Your task to perform on an android device: check the backup settings in the google photos Image 0: 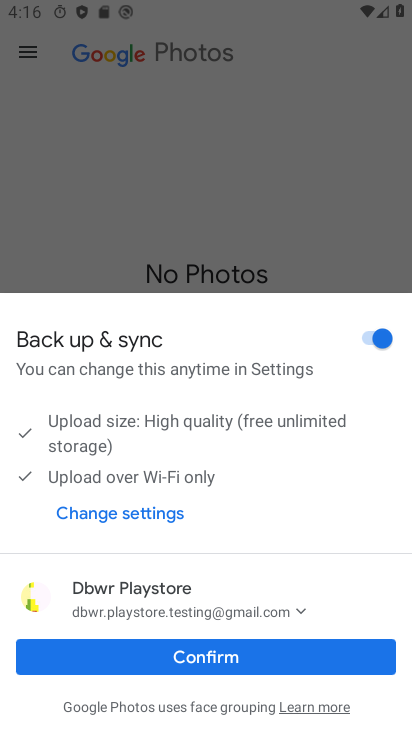
Step 0: press home button
Your task to perform on an android device: check the backup settings in the google photos Image 1: 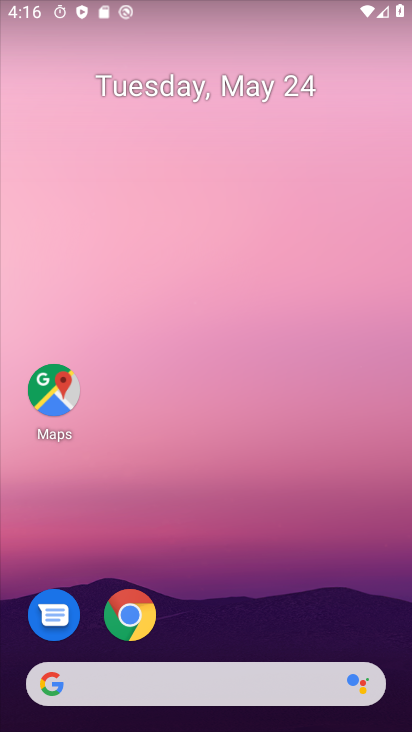
Step 1: drag from (206, 613) to (293, 65)
Your task to perform on an android device: check the backup settings in the google photos Image 2: 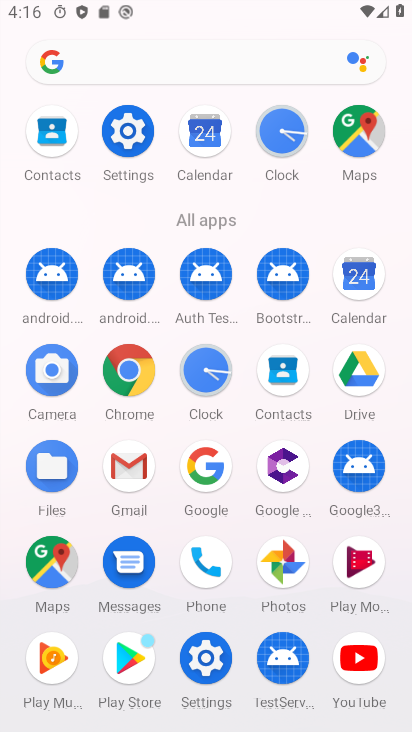
Step 2: click (288, 549)
Your task to perform on an android device: check the backup settings in the google photos Image 3: 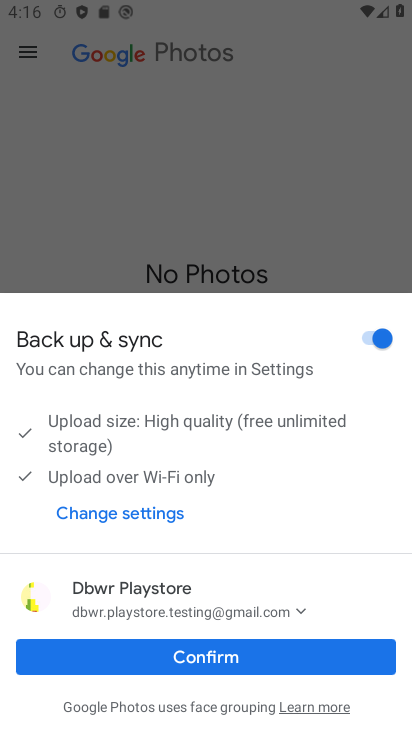
Step 3: click (215, 659)
Your task to perform on an android device: check the backup settings in the google photos Image 4: 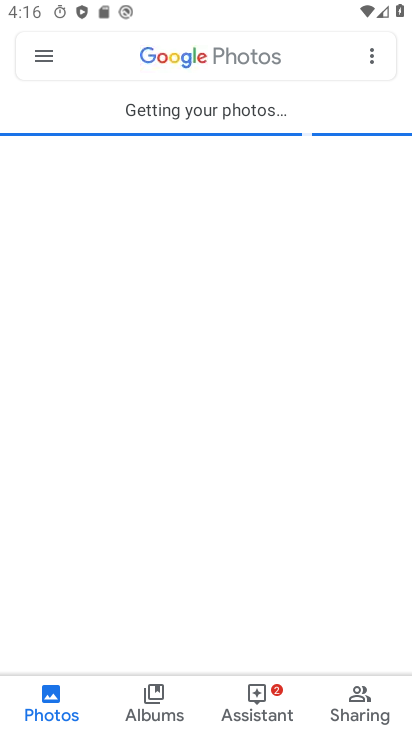
Step 4: click (38, 47)
Your task to perform on an android device: check the backup settings in the google photos Image 5: 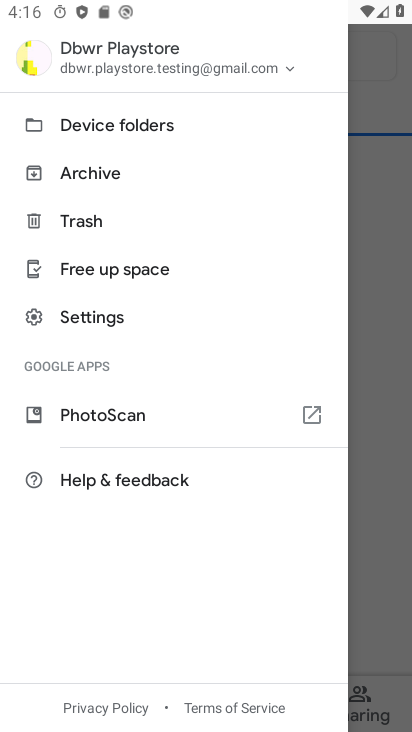
Step 5: click (99, 309)
Your task to perform on an android device: check the backup settings in the google photos Image 6: 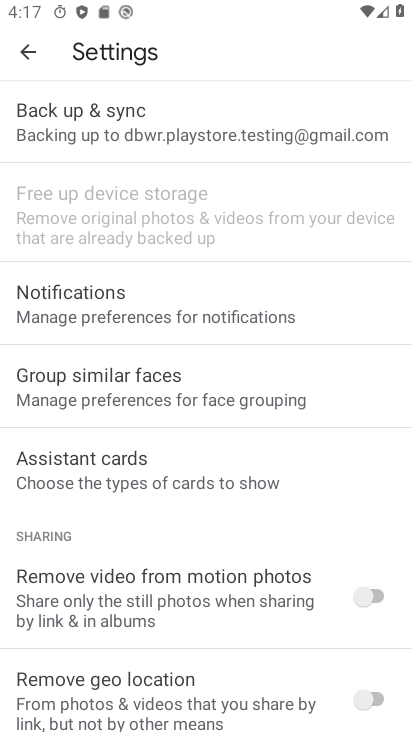
Step 6: click (132, 126)
Your task to perform on an android device: check the backup settings in the google photos Image 7: 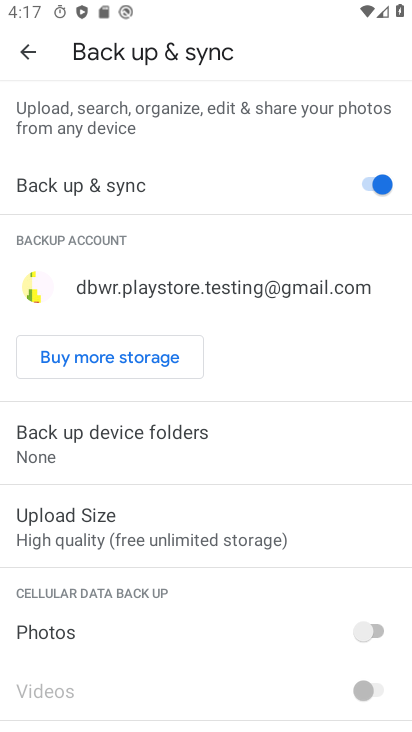
Step 7: task complete